Your task to perform on an android device: turn off wifi Image 0: 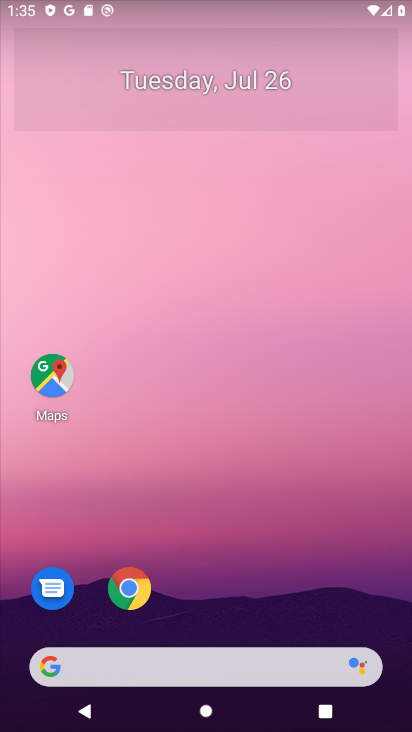
Step 0: drag from (202, 633) to (137, 52)
Your task to perform on an android device: turn off wifi Image 1: 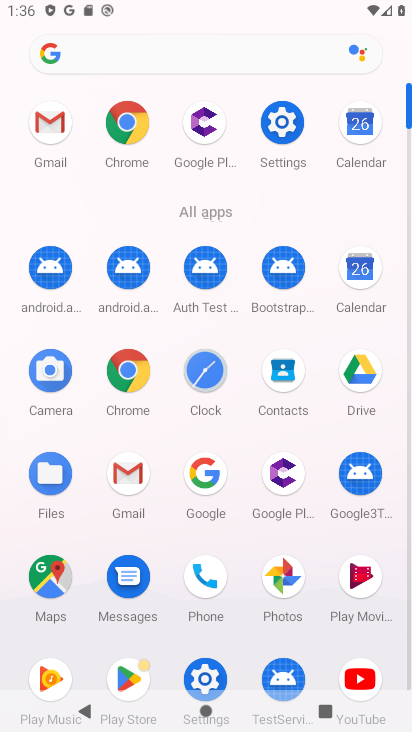
Step 1: click (285, 140)
Your task to perform on an android device: turn off wifi Image 2: 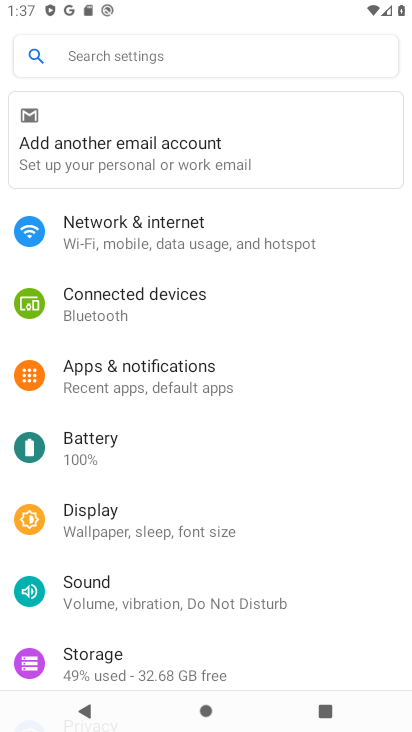
Step 2: click (118, 249)
Your task to perform on an android device: turn off wifi Image 3: 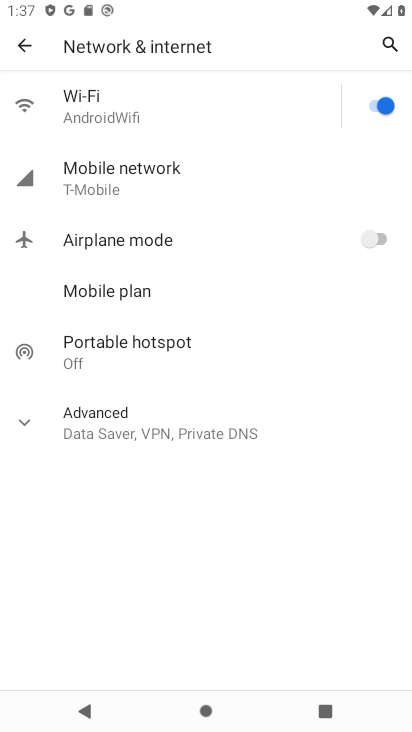
Step 3: click (366, 102)
Your task to perform on an android device: turn off wifi Image 4: 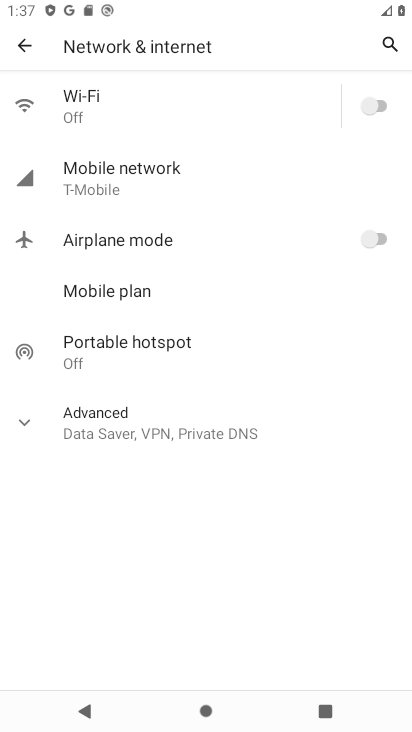
Step 4: task complete